Your task to perform on an android device: turn off location history Image 0: 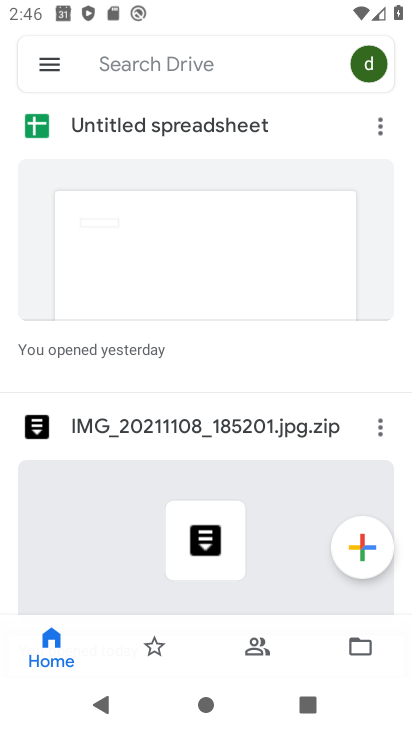
Step 0: press home button
Your task to perform on an android device: turn off location history Image 1: 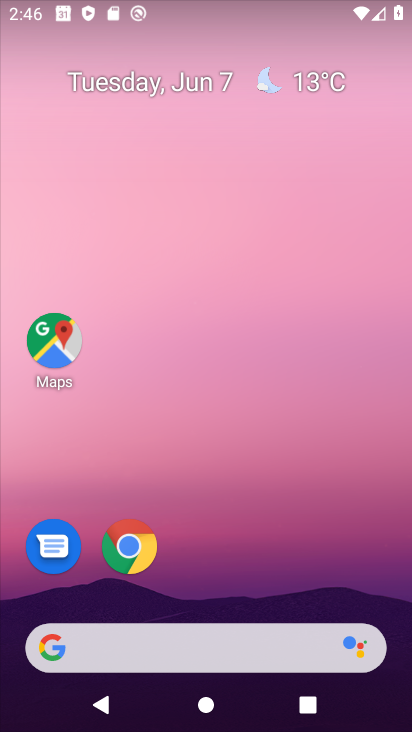
Step 1: drag from (225, 591) to (286, 165)
Your task to perform on an android device: turn off location history Image 2: 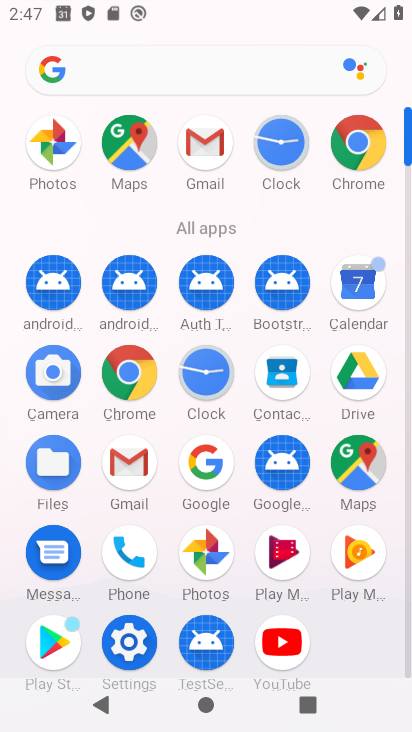
Step 2: click (133, 641)
Your task to perform on an android device: turn off location history Image 3: 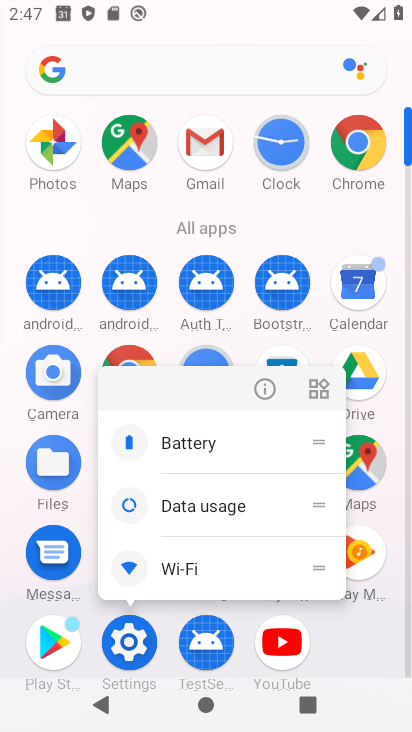
Step 3: click (133, 639)
Your task to perform on an android device: turn off location history Image 4: 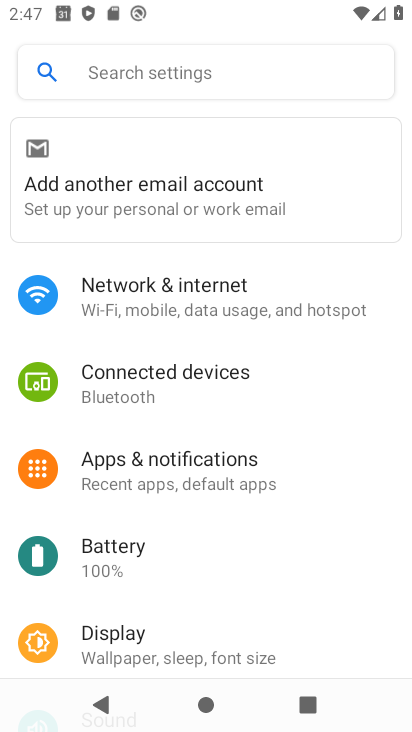
Step 4: drag from (182, 620) to (204, 285)
Your task to perform on an android device: turn off location history Image 5: 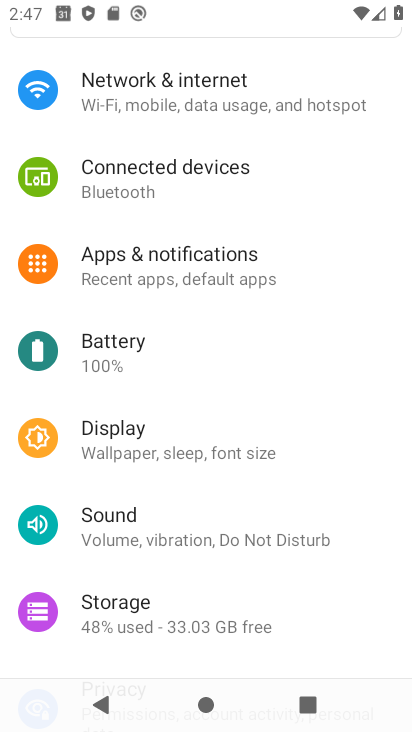
Step 5: drag from (139, 626) to (188, 310)
Your task to perform on an android device: turn off location history Image 6: 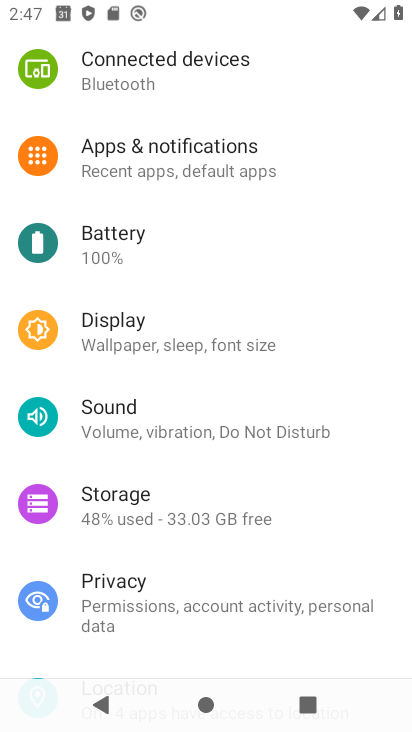
Step 6: drag from (143, 523) to (174, 195)
Your task to perform on an android device: turn off location history Image 7: 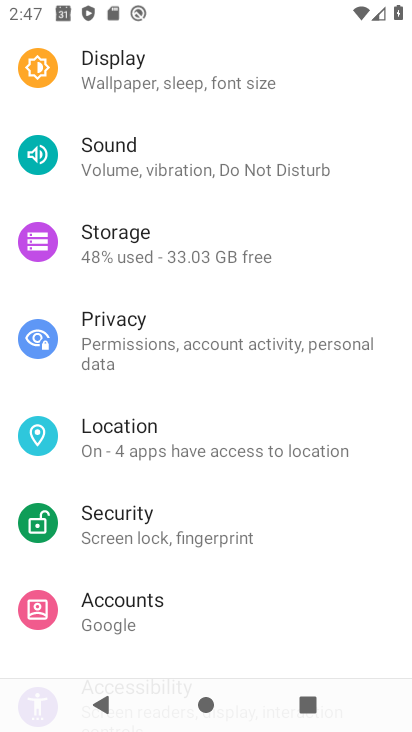
Step 7: drag from (163, 580) to (184, 341)
Your task to perform on an android device: turn off location history Image 8: 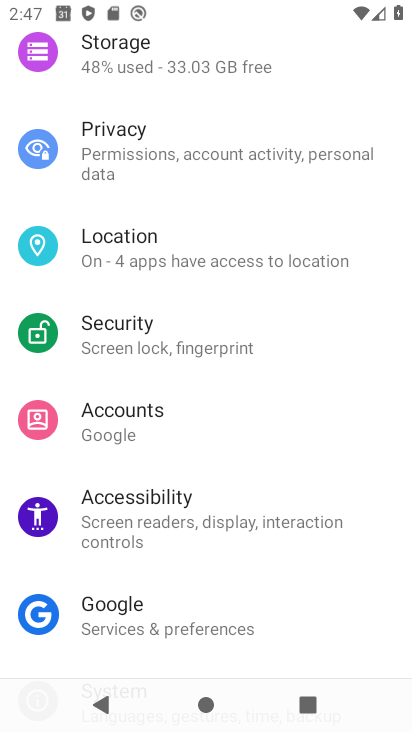
Step 8: click (177, 263)
Your task to perform on an android device: turn off location history Image 9: 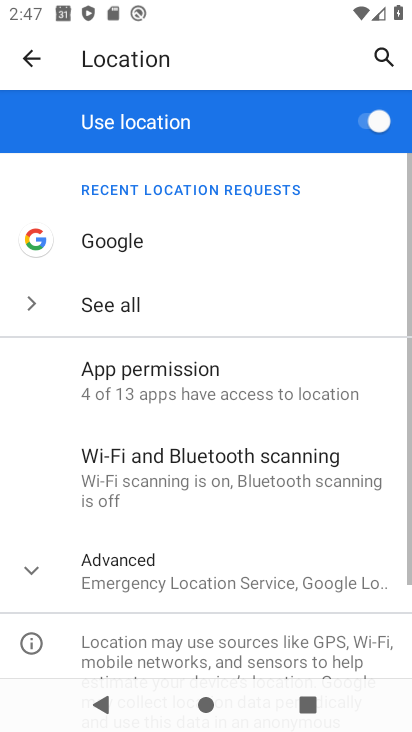
Step 9: drag from (171, 561) to (228, 238)
Your task to perform on an android device: turn off location history Image 10: 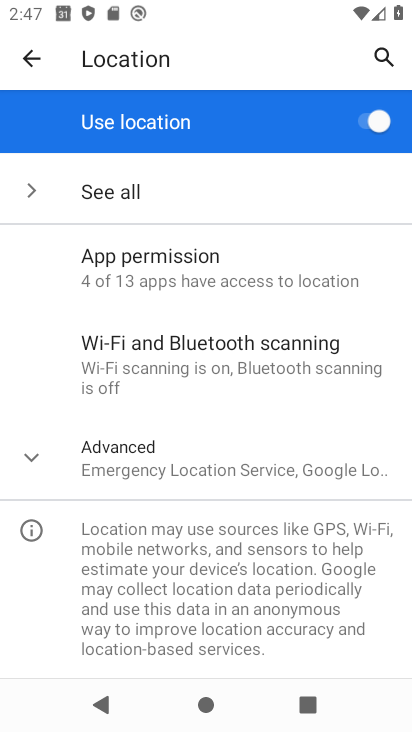
Step 10: click (53, 454)
Your task to perform on an android device: turn off location history Image 11: 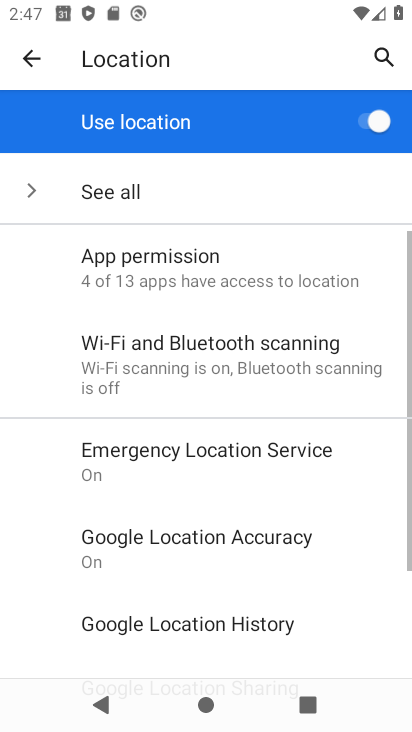
Step 11: drag from (97, 654) to (119, 290)
Your task to perform on an android device: turn off location history Image 12: 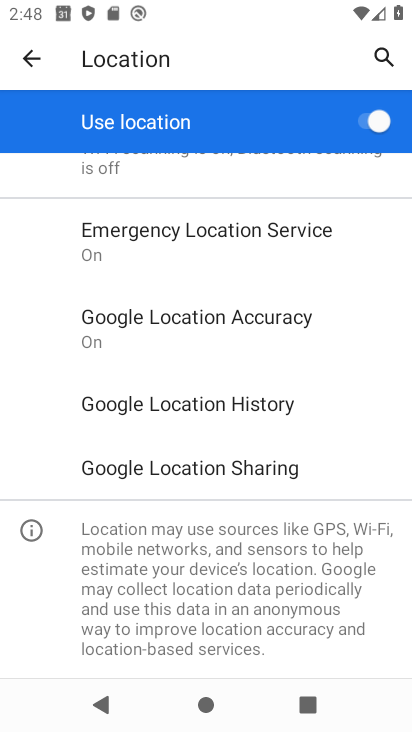
Step 12: click (123, 395)
Your task to perform on an android device: turn off location history Image 13: 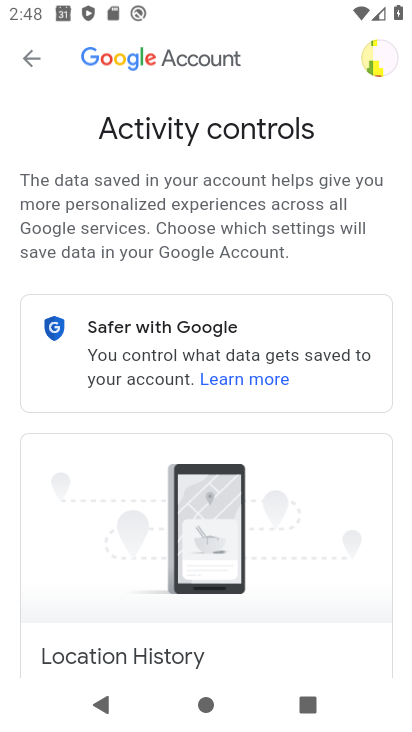
Step 13: drag from (124, 522) to (178, 142)
Your task to perform on an android device: turn off location history Image 14: 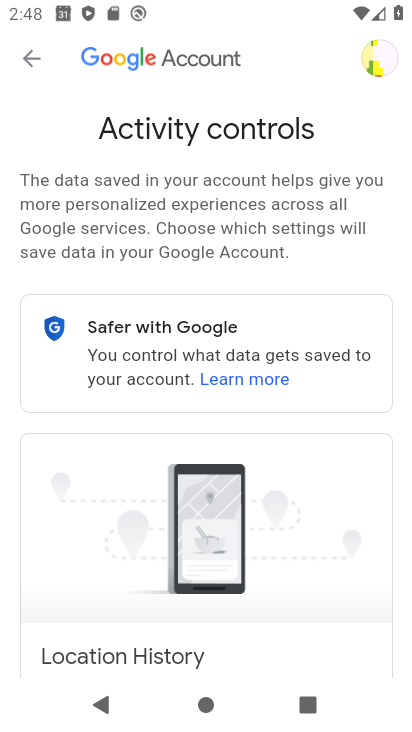
Step 14: drag from (240, 529) to (292, 176)
Your task to perform on an android device: turn off location history Image 15: 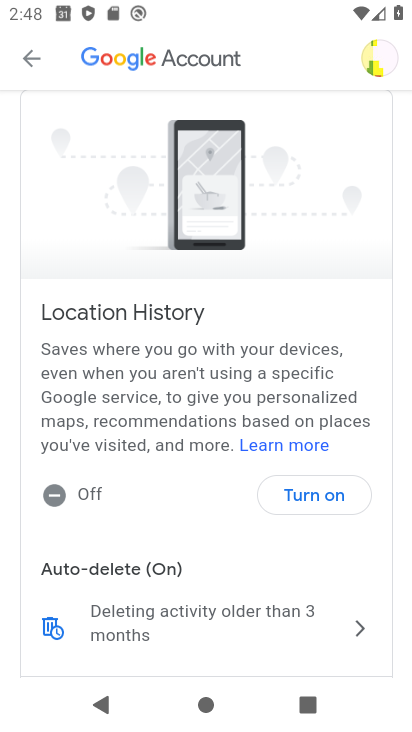
Step 15: click (302, 492)
Your task to perform on an android device: turn off location history Image 16: 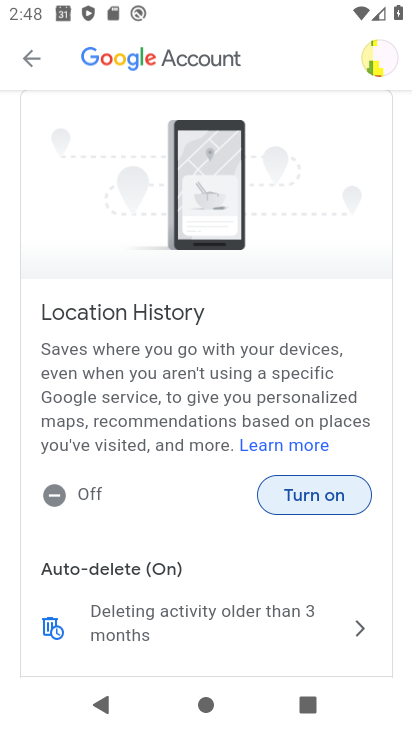
Step 16: task complete